Your task to perform on an android device: Go to notification settings Image 0: 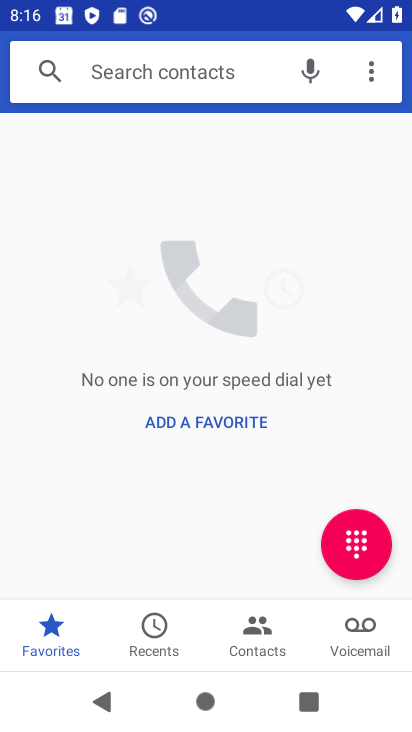
Step 0: press home button
Your task to perform on an android device: Go to notification settings Image 1: 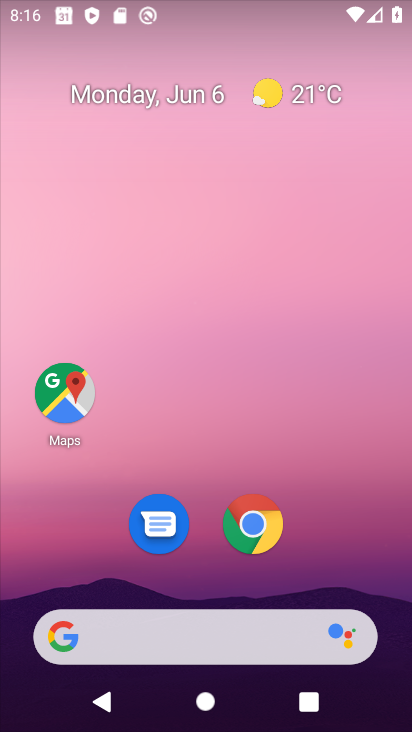
Step 1: drag from (311, 534) to (374, 36)
Your task to perform on an android device: Go to notification settings Image 2: 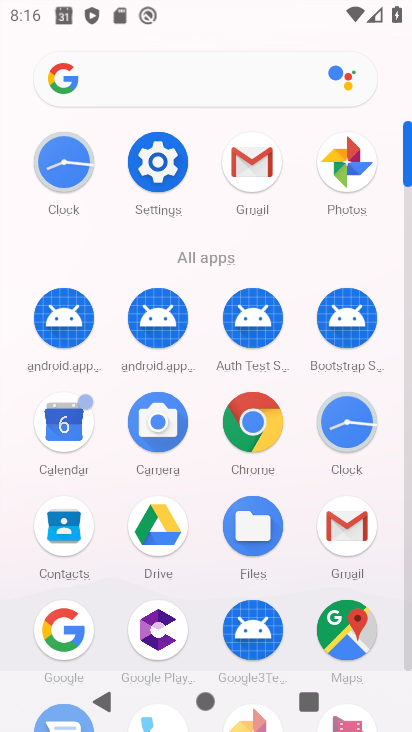
Step 2: click (155, 167)
Your task to perform on an android device: Go to notification settings Image 3: 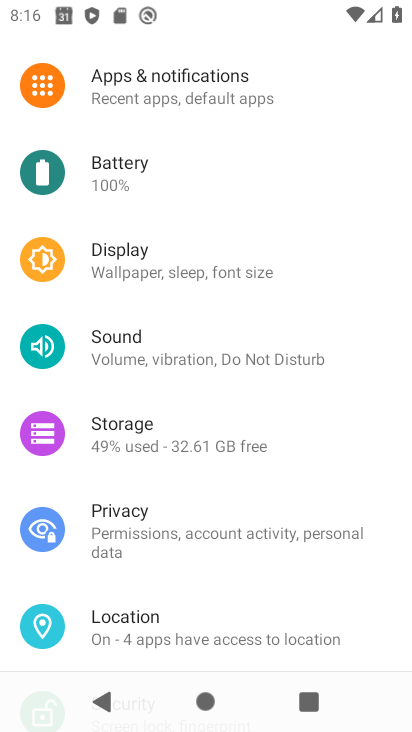
Step 3: click (225, 79)
Your task to perform on an android device: Go to notification settings Image 4: 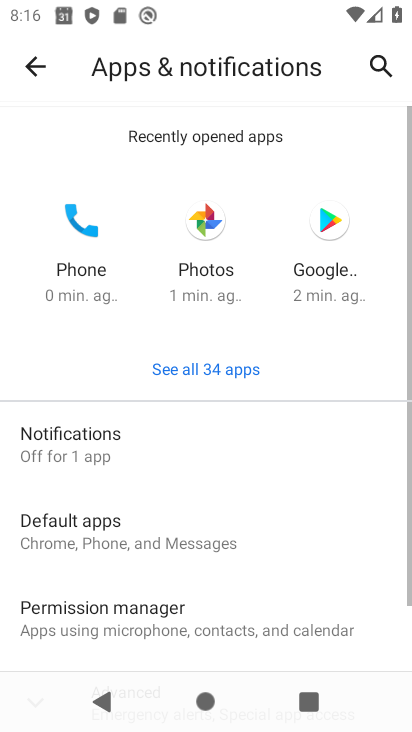
Step 4: click (148, 446)
Your task to perform on an android device: Go to notification settings Image 5: 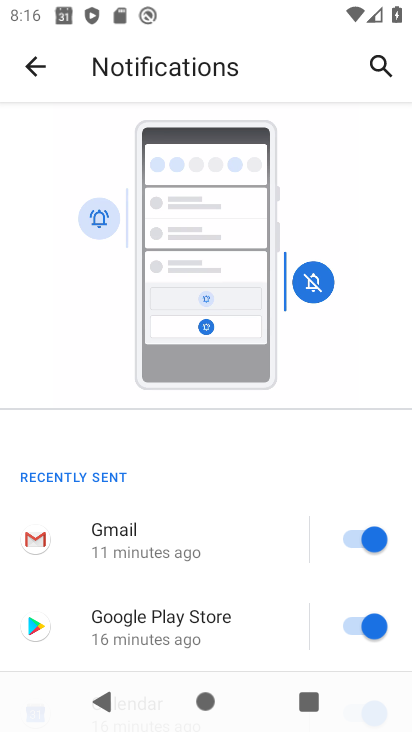
Step 5: task complete